Your task to perform on an android device: Toggle the flashlight Image 0: 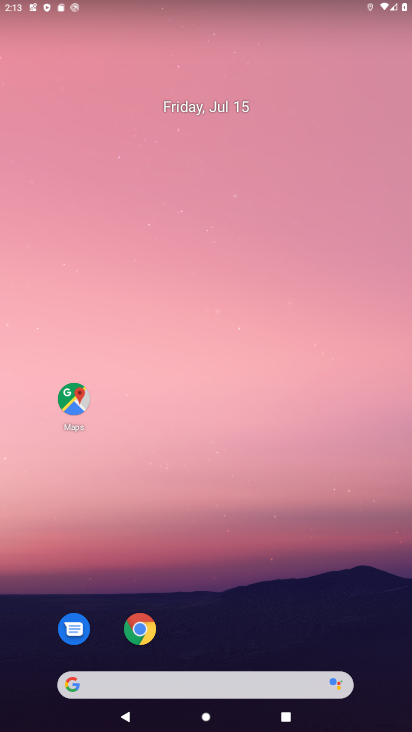
Step 0: click (238, 99)
Your task to perform on an android device: Toggle the flashlight Image 1: 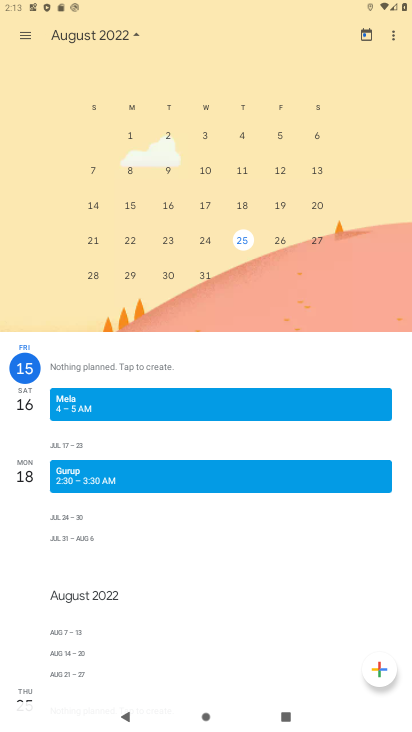
Step 1: press home button
Your task to perform on an android device: Toggle the flashlight Image 2: 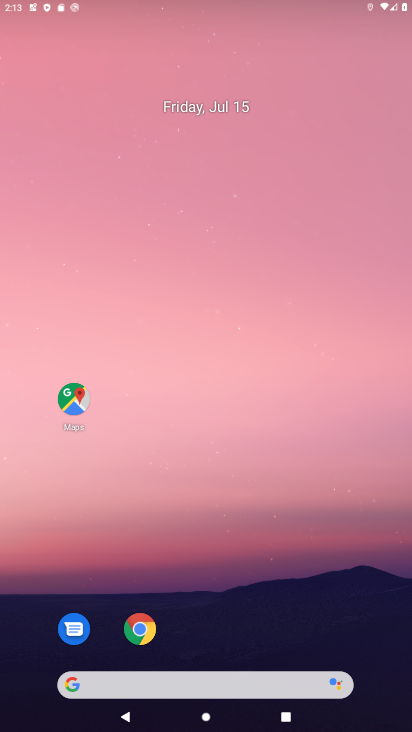
Step 2: drag from (196, 653) to (221, 167)
Your task to perform on an android device: Toggle the flashlight Image 3: 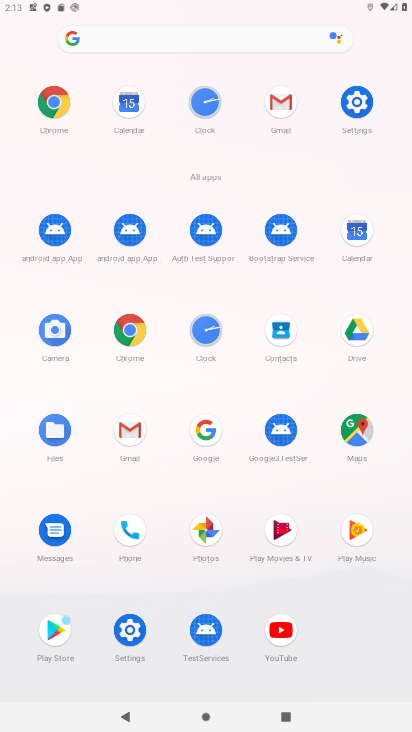
Step 3: click (356, 107)
Your task to perform on an android device: Toggle the flashlight Image 4: 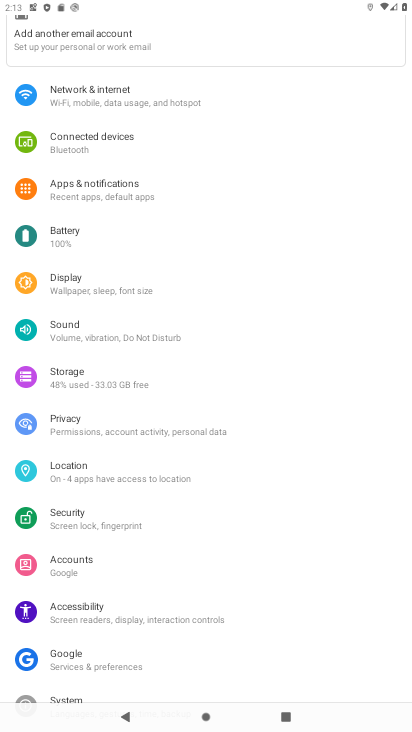
Step 4: drag from (188, 139) to (208, 391)
Your task to perform on an android device: Toggle the flashlight Image 5: 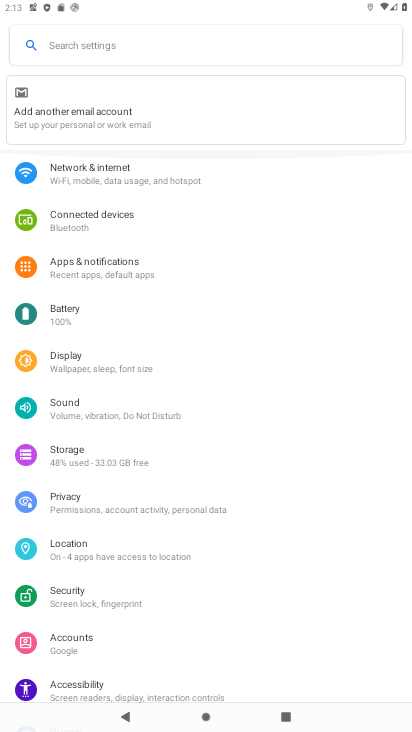
Step 5: click (134, 52)
Your task to perform on an android device: Toggle the flashlight Image 6: 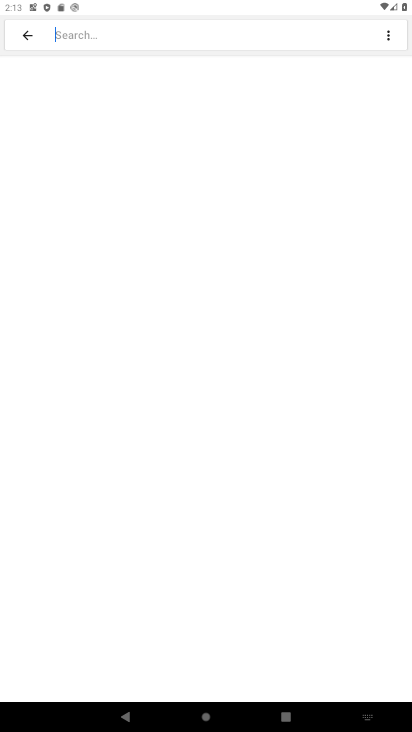
Step 6: type "flashlight"
Your task to perform on an android device: Toggle the flashlight Image 7: 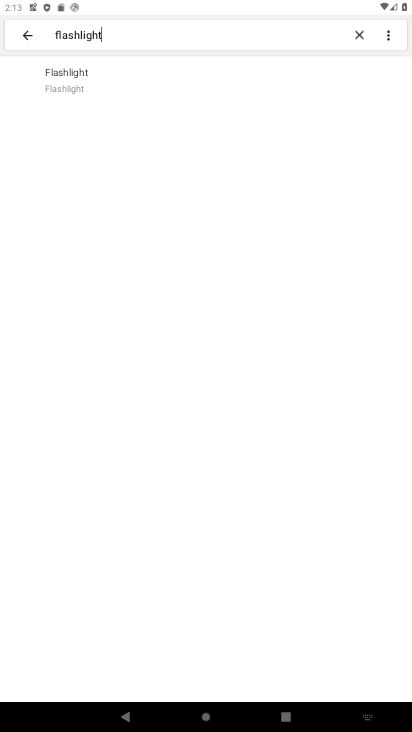
Step 7: task complete